Your task to perform on an android device: allow notifications from all sites in the chrome app Image 0: 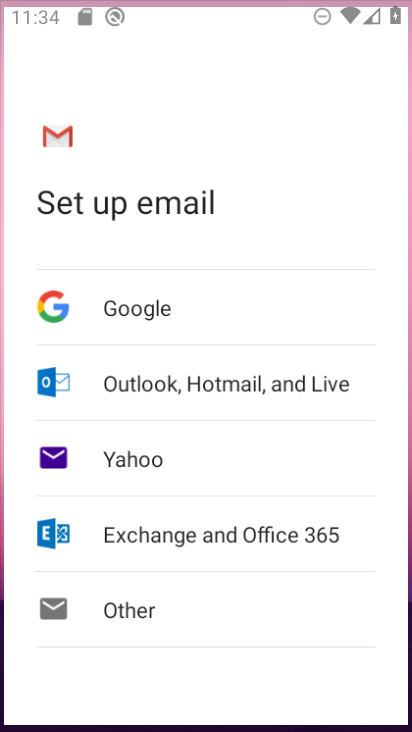
Step 0: drag from (309, 651) to (335, 206)
Your task to perform on an android device: allow notifications from all sites in the chrome app Image 1: 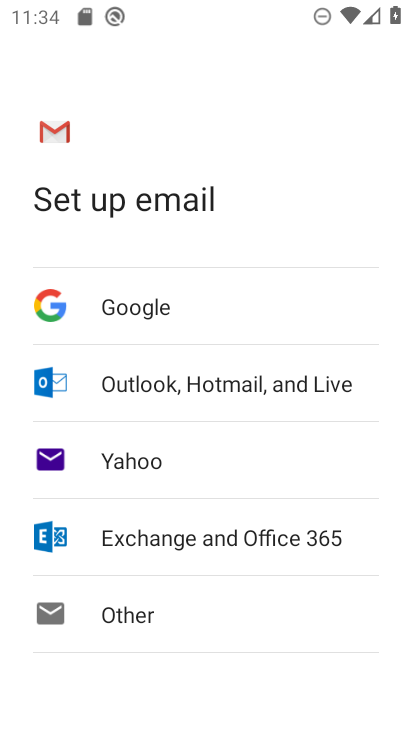
Step 1: press home button
Your task to perform on an android device: allow notifications from all sites in the chrome app Image 2: 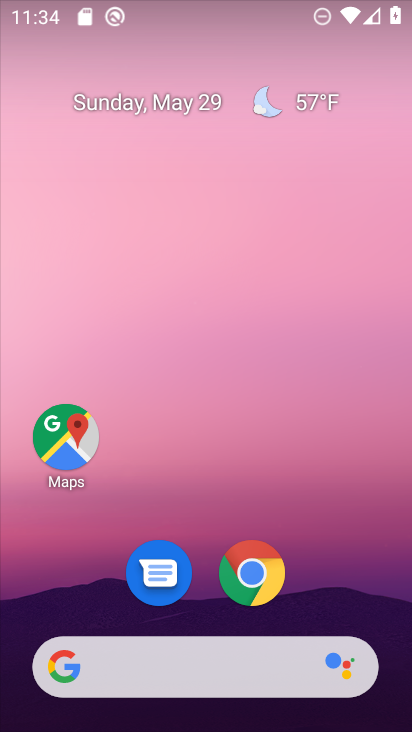
Step 2: drag from (257, 672) to (236, 127)
Your task to perform on an android device: allow notifications from all sites in the chrome app Image 3: 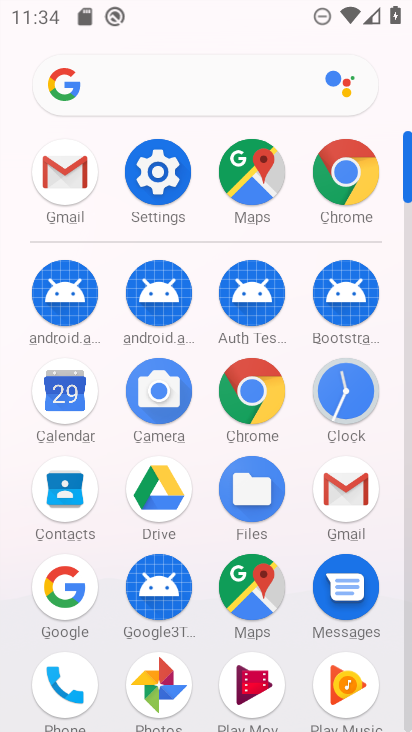
Step 3: click (261, 383)
Your task to perform on an android device: allow notifications from all sites in the chrome app Image 4: 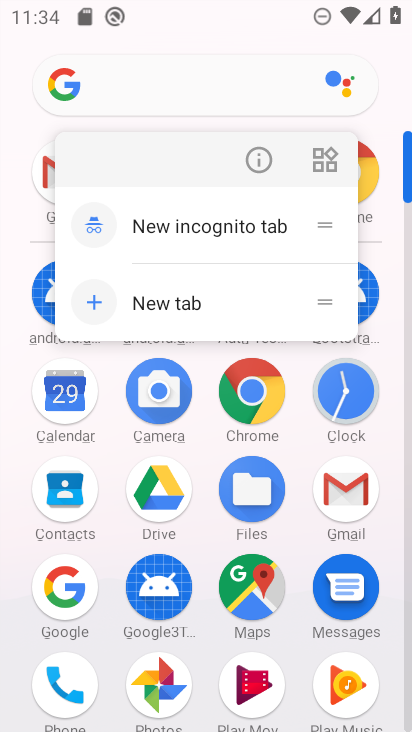
Step 4: click (262, 375)
Your task to perform on an android device: allow notifications from all sites in the chrome app Image 5: 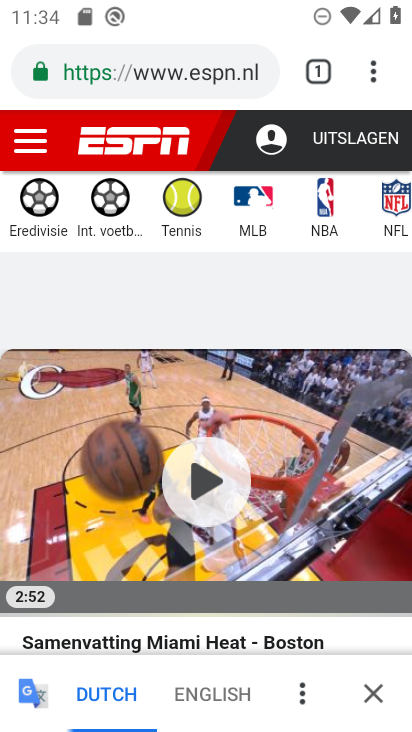
Step 5: drag from (370, 72) to (145, 581)
Your task to perform on an android device: allow notifications from all sites in the chrome app Image 6: 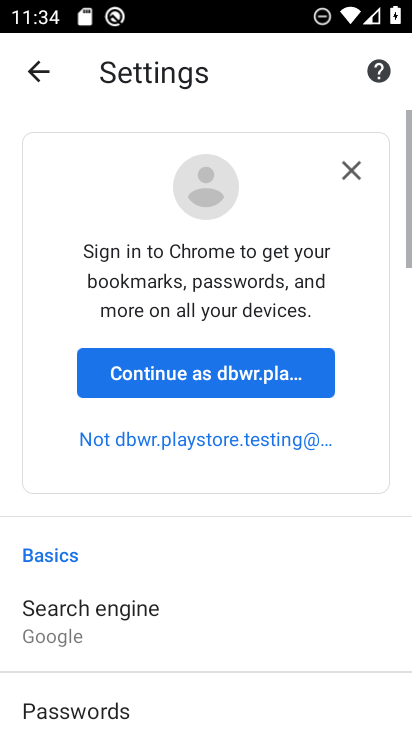
Step 6: drag from (187, 600) to (245, 0)
Your task to perform on an android device: allow notifications from all sites in the chrome app Image 7: 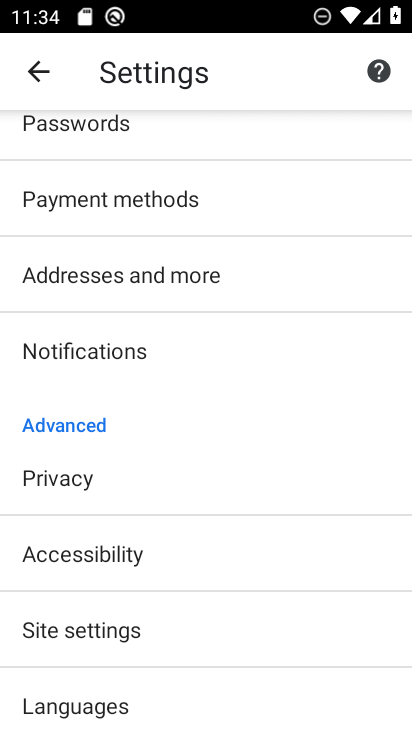
Step 7: click (132, 630)
Your task to perform on an android device: allow notifications from all sites in the chrome app Image 8: 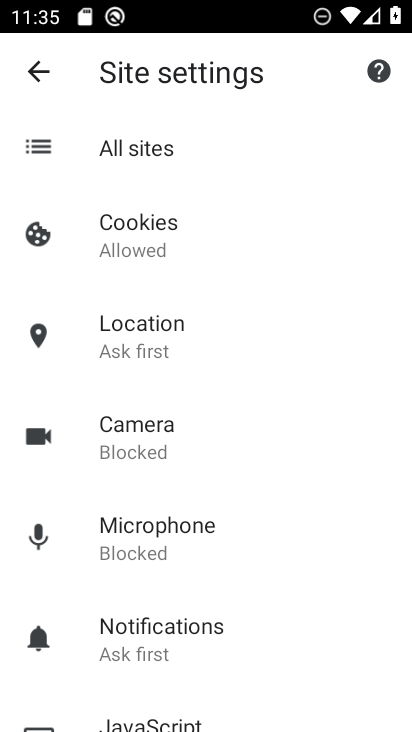
Step 8: click (210, 634)
Your task to perform on an android device: allow notifications from all sites in the chrome app Image 9: 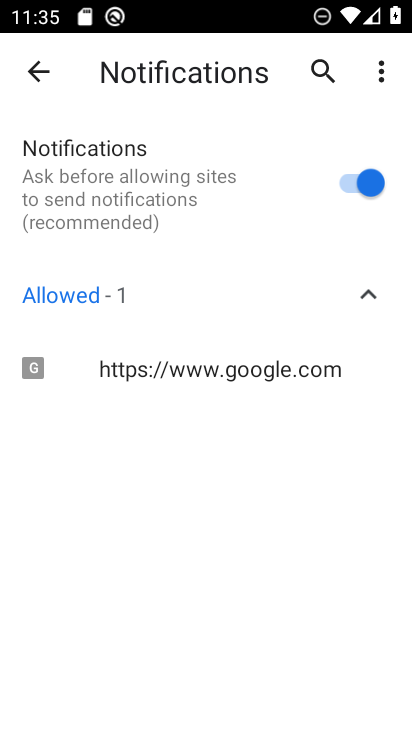
Step 9: click (280, 372)
Your task to perform on an android device: allow notifications from all sites in the chrome app Image 10: 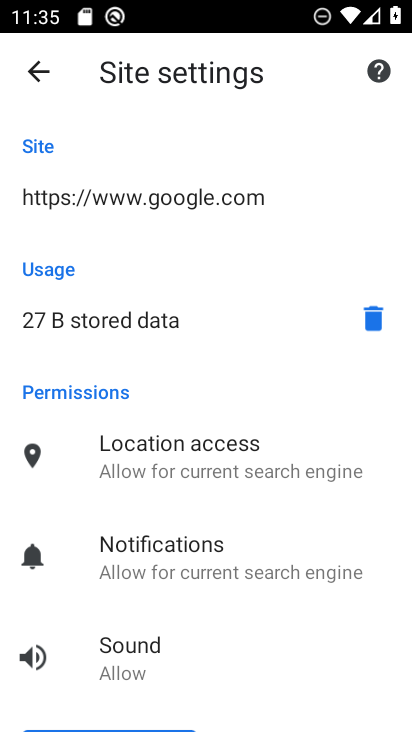
Step 10: task complete